Your task to perform on an android device: Go to location settings Image 0: 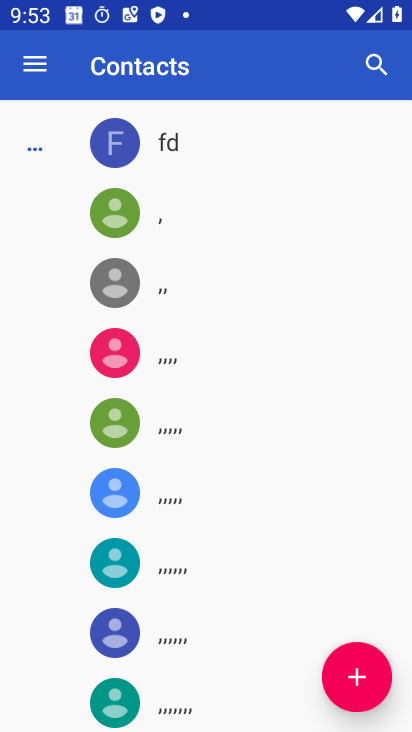
Step 0: press home button
Your task to perform on an android device: Go to location settings Image 1: 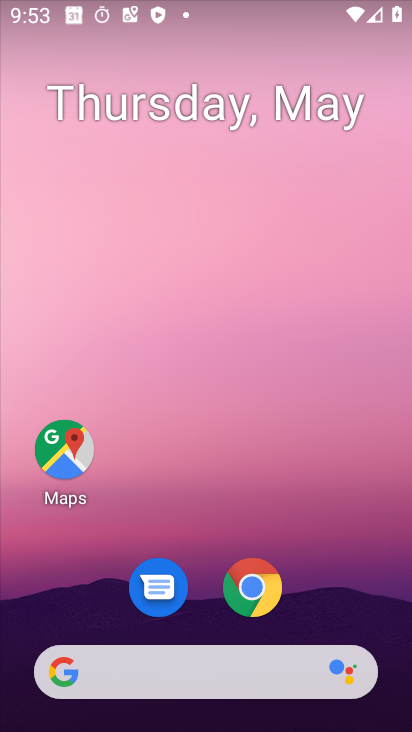
Step 1: drag from (350, 635) to (346, 25)
Your task to perform on an android device: Go to location settings Image 2: 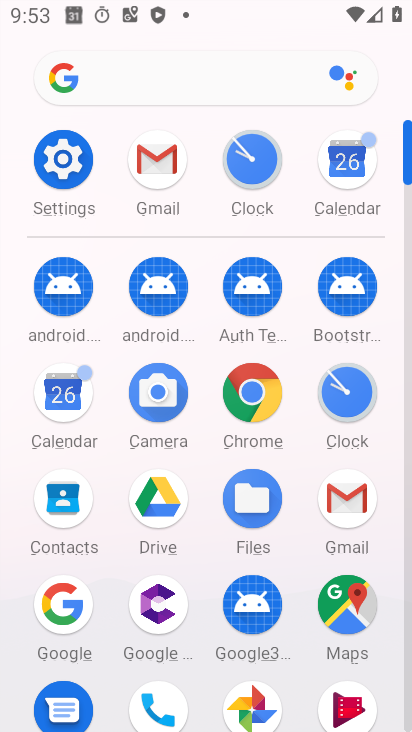
Step 2: click (61, 164)
Your task to perform on an android device: Go to location settings Image 3: 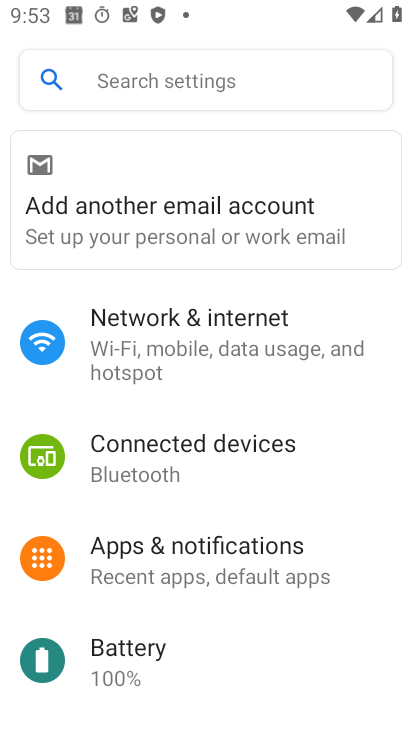
Step 3: drag from (243, 543) to (203, 111)
Your task to perform on an android device: Go to location settings Image 4: 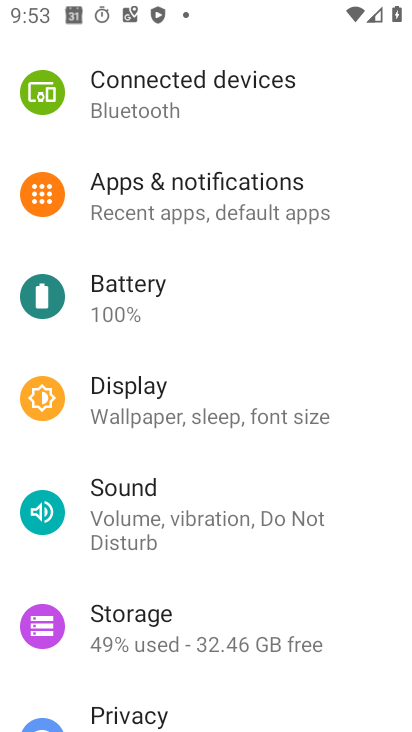
Step 4: drag from (184, 538) to (145, 147)
Your task to perform on an android device: Go to location settings Image 5: 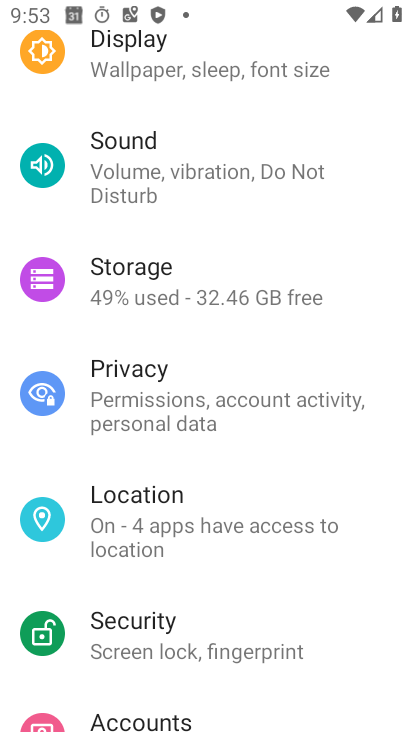
Step 5: click (144, 504)
Your task to perform on an android device: Go to location settings Image 6: 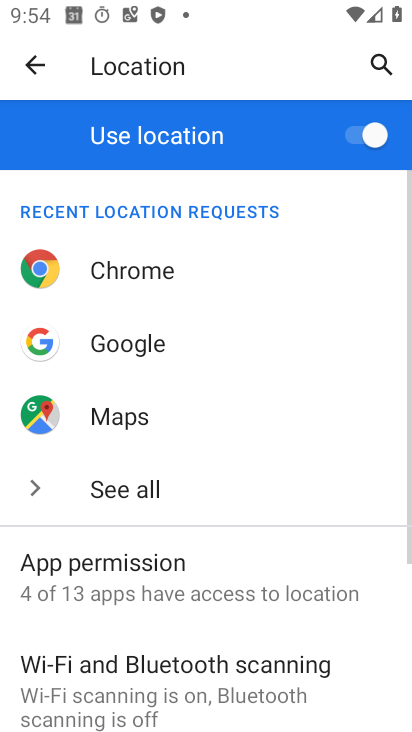
Step 6: task complete